Your task to perform on an android device: check battery use Image 0: 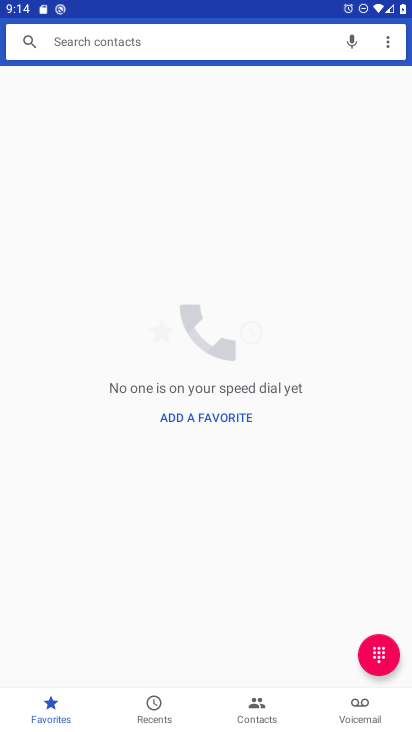
Step 0: press home button
Your task to perform on an android device: check battery use Image 1: 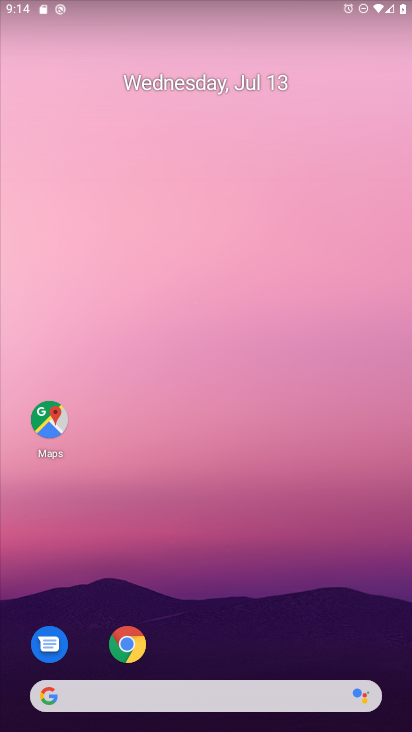
Step 1: drag from (251, 584) to (230, 56)
Your task to perform on an android device: check battery use Image 2: 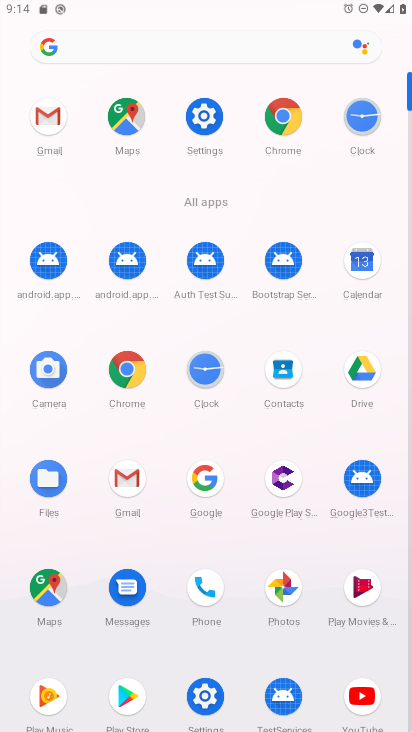
Step 2: click (207, 115)
Your task to perform on an android device: check battery use Image 3: 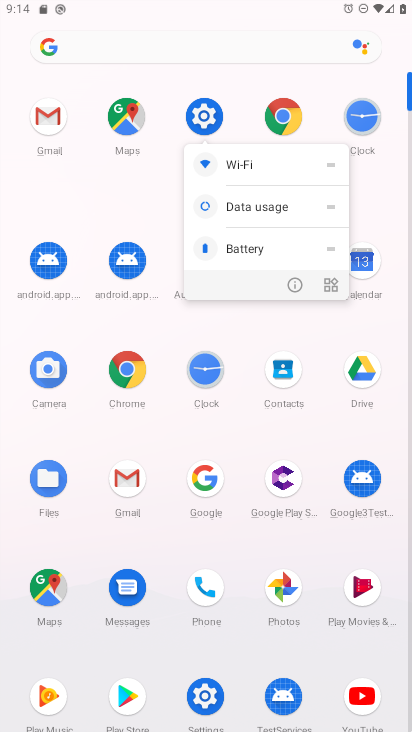
Step 3: click (203, 123)
Your task to perform on an android device: check battery use Image 4: 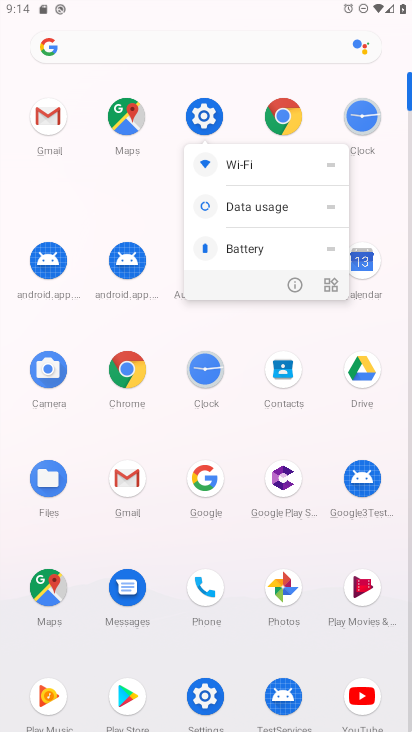
Step 4: click (203, 123)
Your task to perform on an android device: check battery use Image 5: 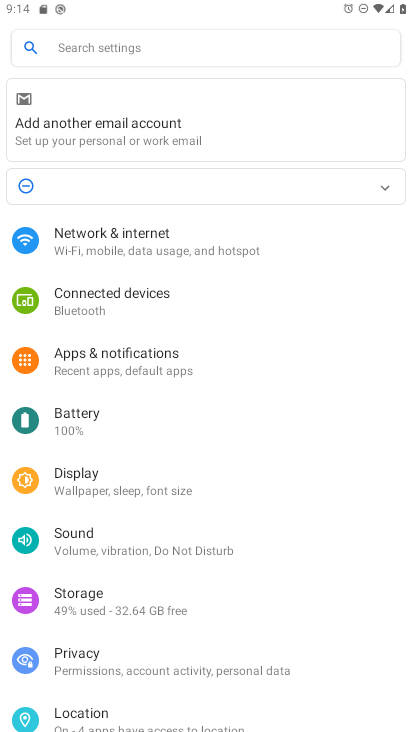
Step 5: click (82, 421)
Your task to perform on an android device: check battery use Image 6: 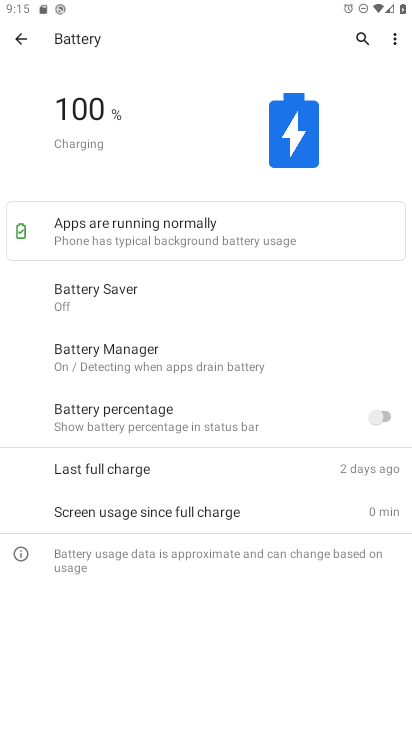
Step 6: task complete